Your task to perform on an android device: Go to calendar. Show me events next week Image 0: 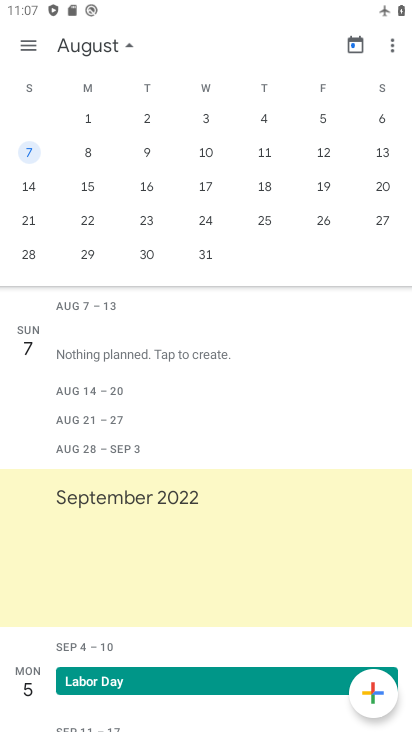
Step 0: drag from (289, 671) to (266, 464)
Your task to perform on an android device: Go to calendar. Show me events next week Image 1: 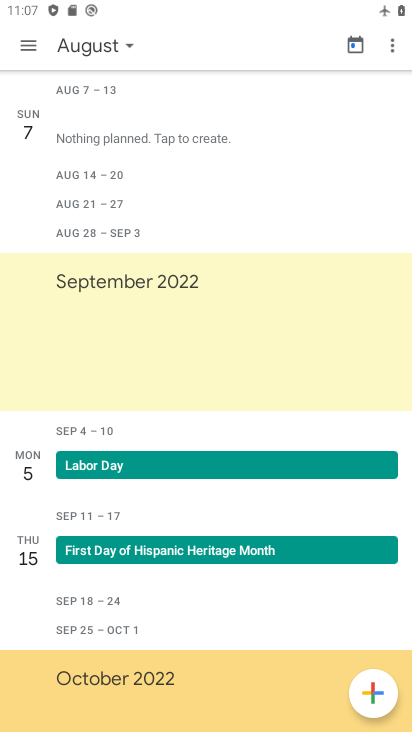
Step 1: task complete